Your task to perform on an android device: set an alarm Image 0: 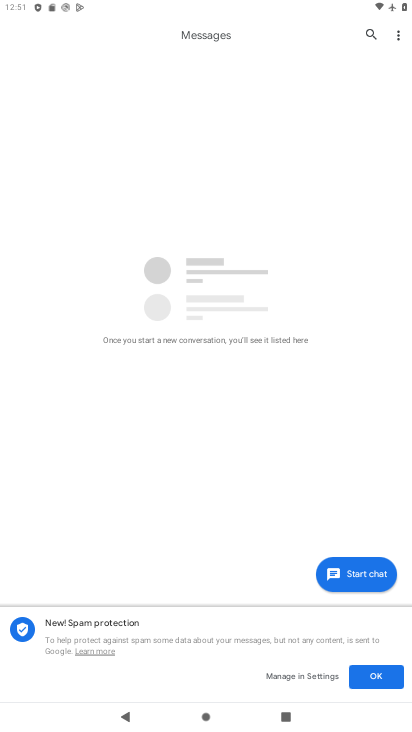
Step 0: press home button
Your task to perform on an android device: set an alarm Image 1: 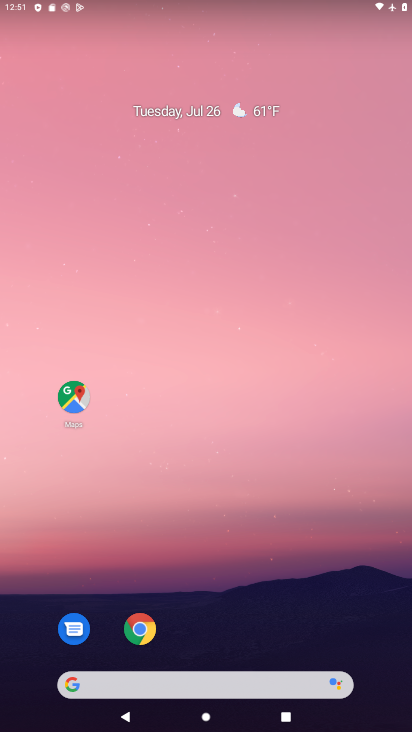
Step 1: drag from (209, 676) to (254, 32)
Your task to perform on an android device: set an alarm Image 2: 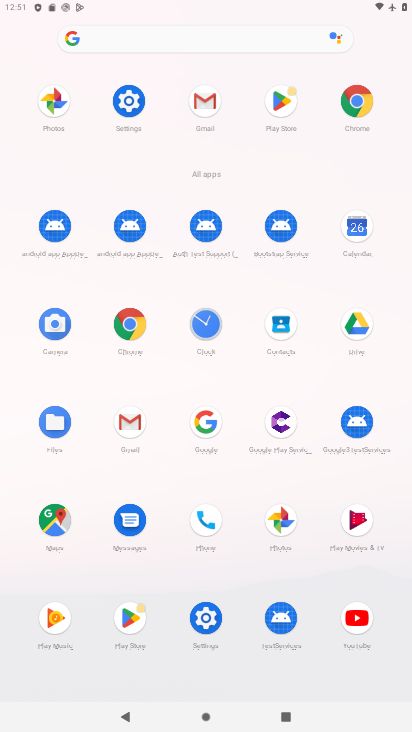
Step 2: click (198, 326)
Your task to perform on an android device: set an alarm Image 3: 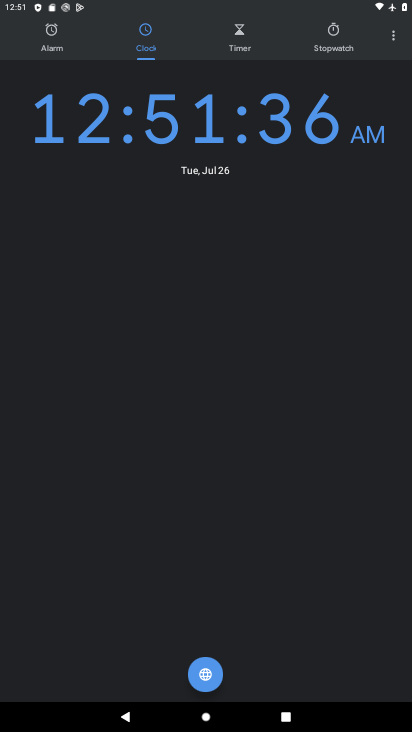
Step 3: click (57, 35)
Your task to perform on an android device: set an alarm Image 4: 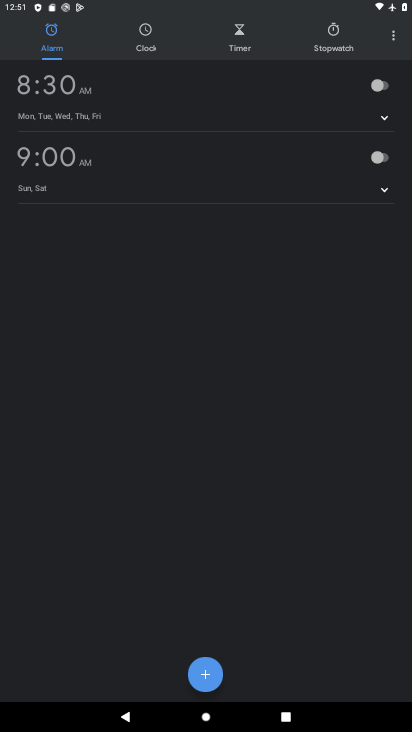
Step 4: click (199, 659)
Your task to perform on an android device: set an alarm Image 5: 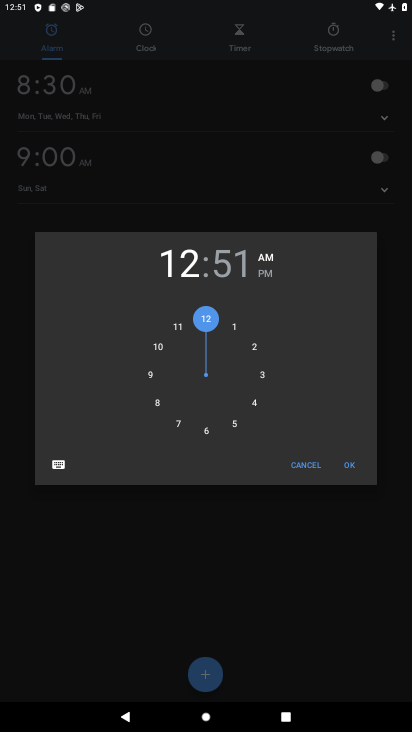
Step 5: click (347, 455)
Your task to perform on an android device: set an alarm Image 6: 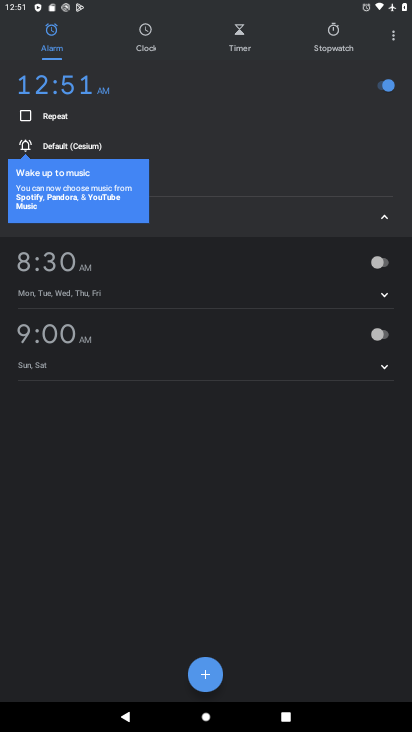
Step 6: task complete